Your task to perform on an android device: empty trash in the gmail app Image 0: 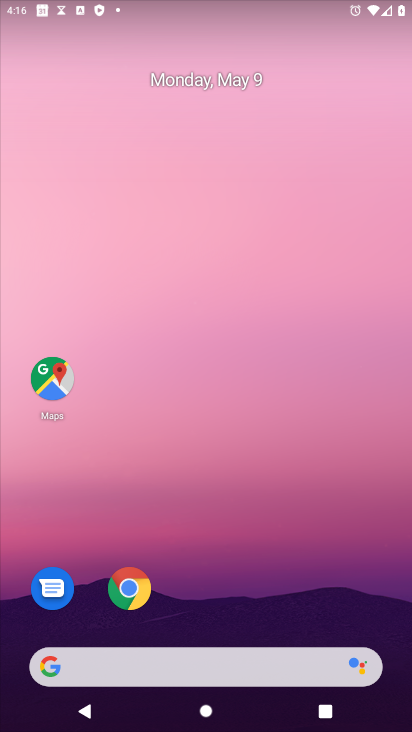
Step 0: drag from (285, 514) to (218, 132)
Your task to perform on an android device: empty trash in the gmail app Image 1: 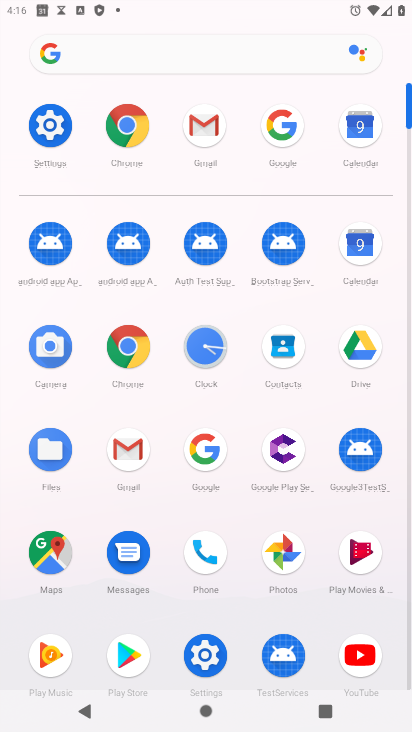
Step 1: click (115, 446)
Your task to perform on an android device: empty trash in the gmail app Image 2: 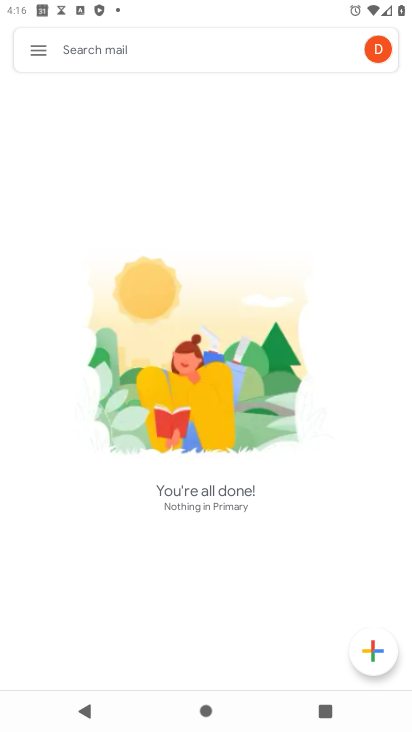
Step 2: click (27, 46)
Your task to perform on an android device: empty trash in the gmail app Image 3: 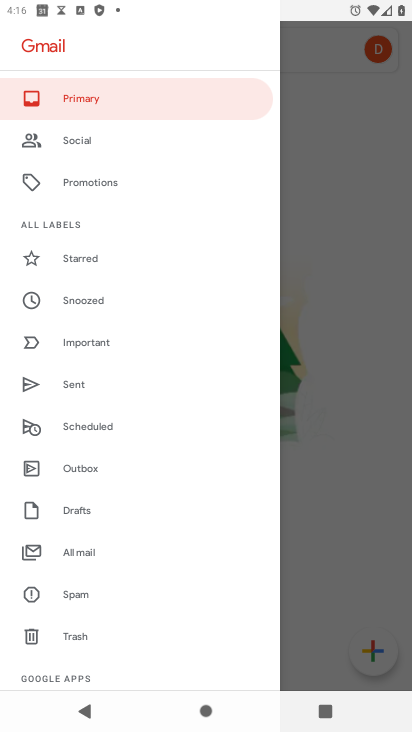
Step 3: click (91, 636)
Your task to perform on an android device: empty trash in the gmail app Image 4: 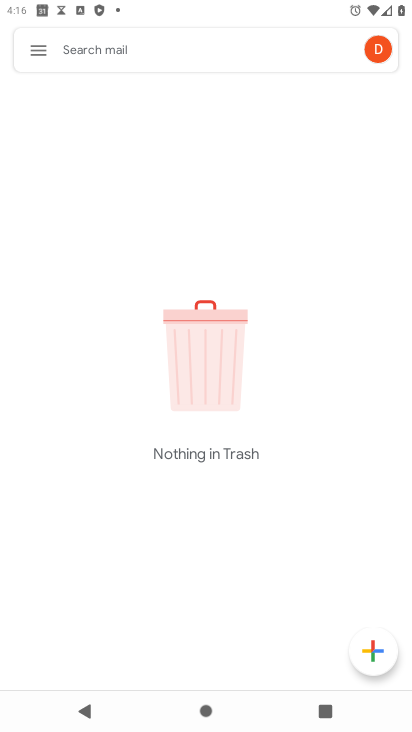
Step 4: task complete